Your task to perform on an android device: turn on notifications settings in the gmail app Image 0: 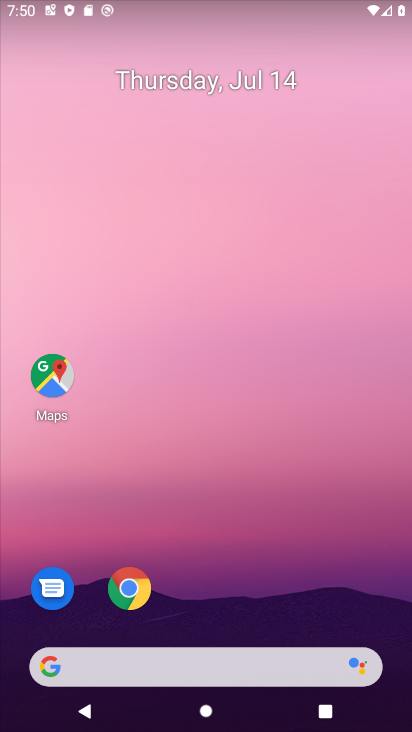
Step 0: drag from (315, 611) to (259, 71)
Your task to perform on an android device: turn on notifications settings in the gmail app Image 1: 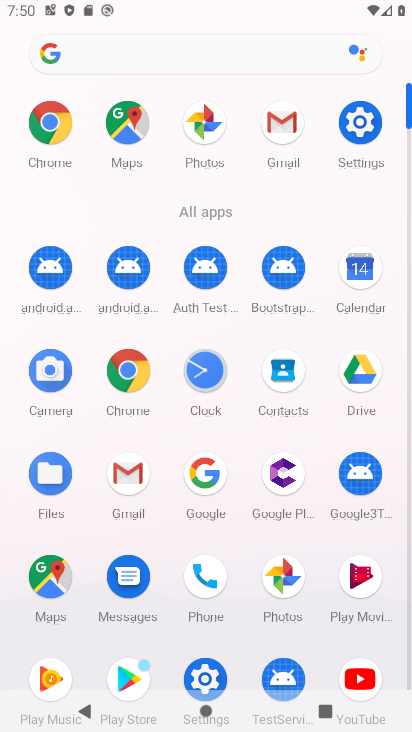
Step 1: click (293, 128)
Your task to perform on an android device: turn on notifications settings in the gmail app Image 2: 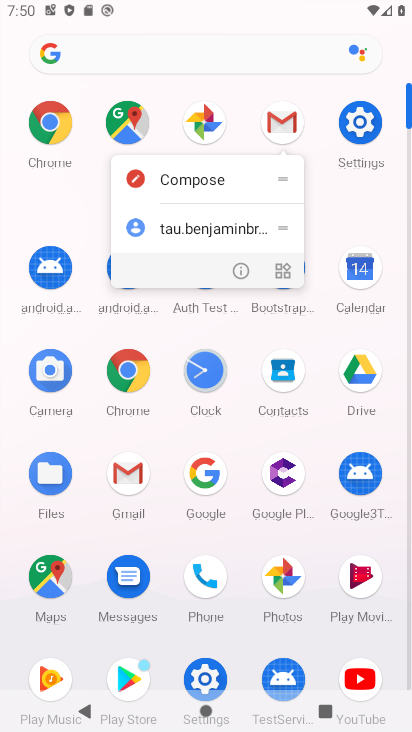
Step 2: click (279, 115)
Your task to perform on an android device: turn on notifications settings in the gmail app Image 3: 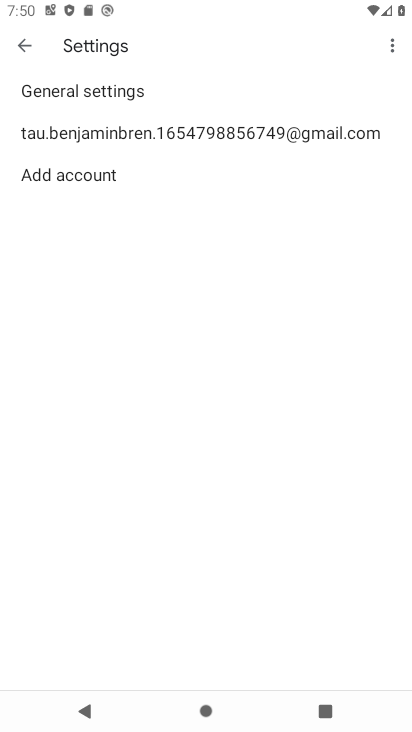
Step 3: click (227, 121)
Your task to perform on an android device: turn on notifications settings in the gmail app Image 4: 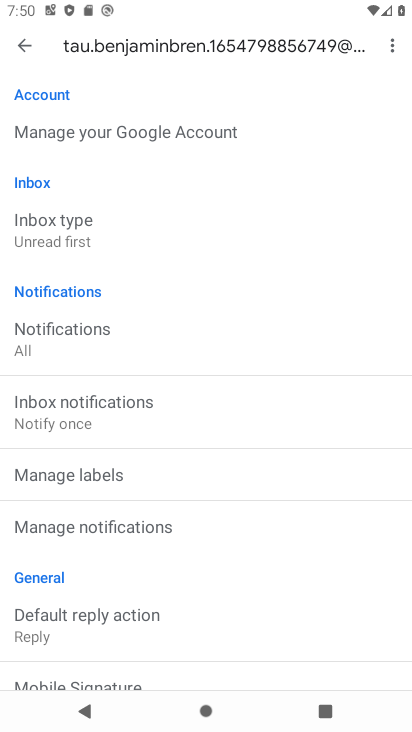
Step 4: click (134, 526)
Your task to perform on an android device: turn on notifications settings in the gmail app Image 5: 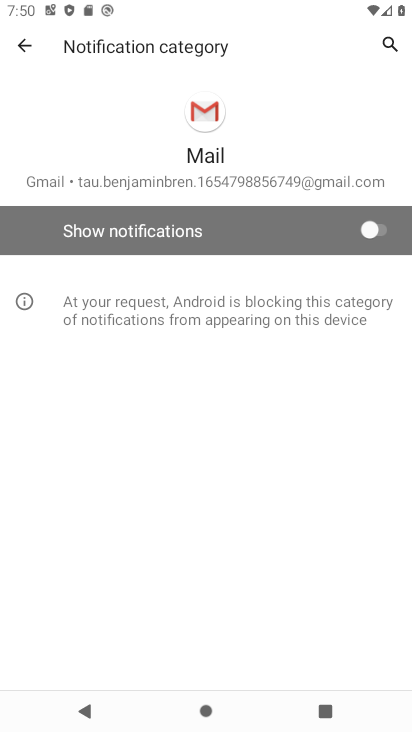
Step 5: click (363, 230)
Your task to perform on an android device: turn on notifications settings in the gmail app Image 6: 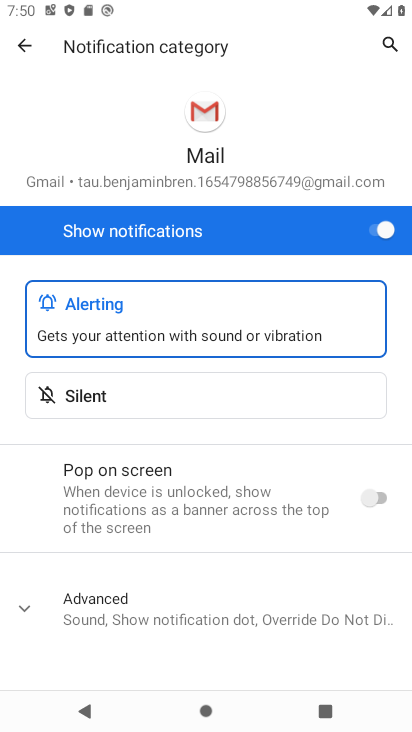
Step 6: task complete